Your task to perform on an android device: find photos in the google photos app Image 0: 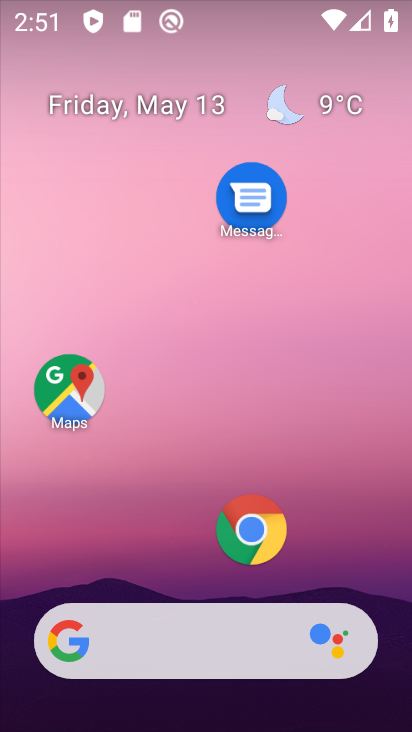
Step 0: drag from (148, 596) to (246, 129)
Your task to perform on an android device: find photos in the google photos app Image 1: 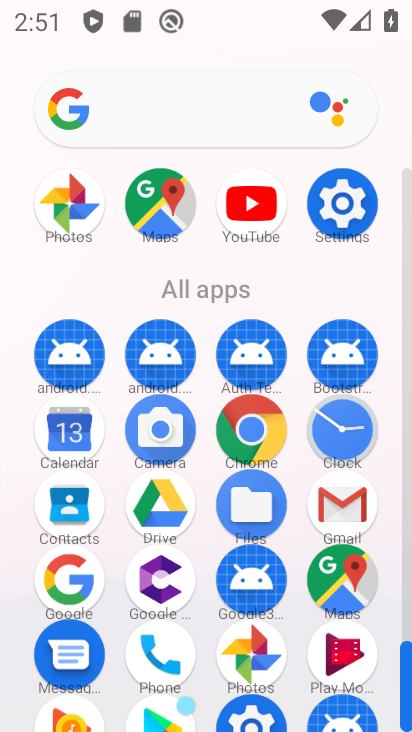
Step 1: click (248, 656)
Your task to perform on an android device: find photos in the google photos app Image 2: 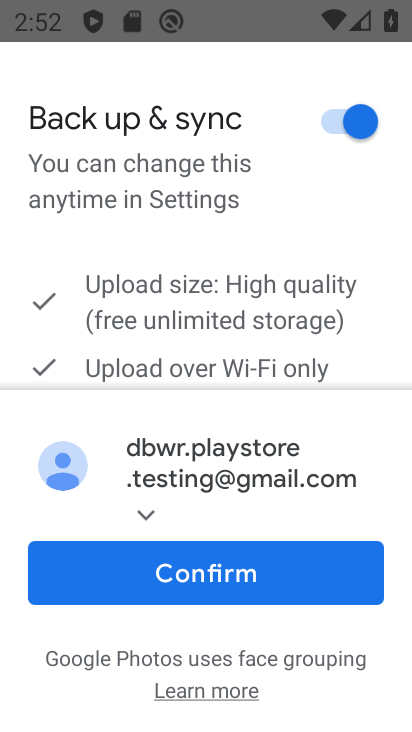
Step 2: click (262, 575)
Your task to perform on an android device: find photos in the google photos app Image 3: 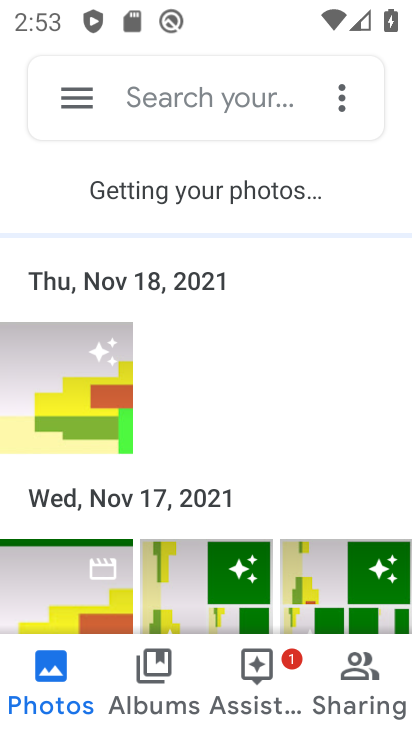
Step 3: task complete